Your task to perform on an android device: toggle notification dots Image 0: 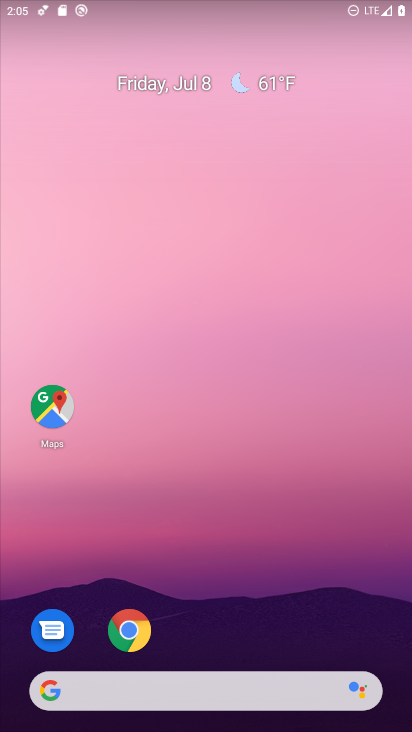
Step 0: drag from (386, 592) to (234, 67)
Your task to perform on an android device: toggle notification dots Image 1: 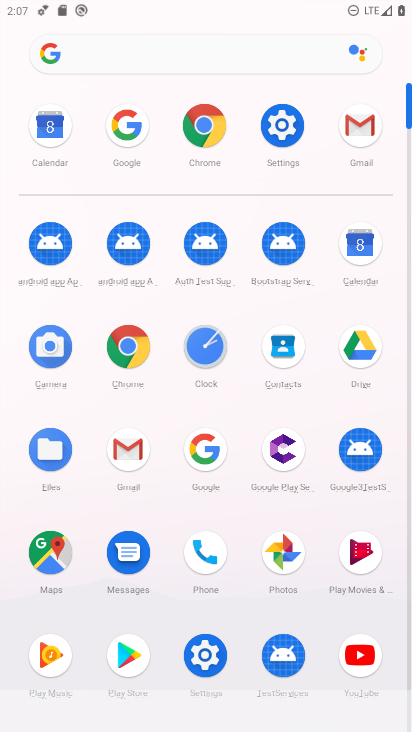
Step 1: click (213, 649)
Your task to perform on an android device: toggle notification dots Image 2: 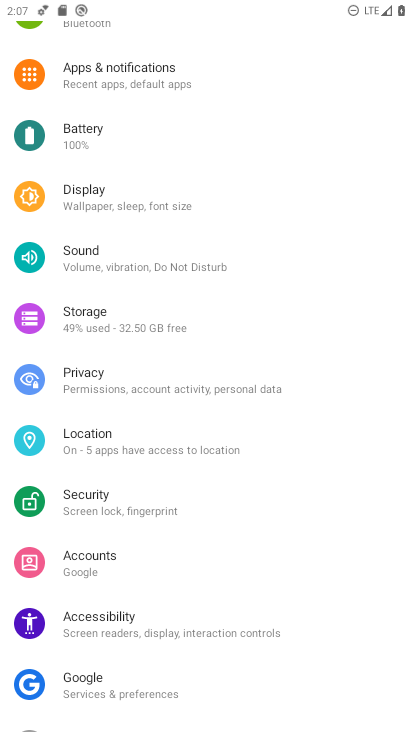
Step 2: click (156, 77)
Your task to perform on an android device: toggle notification dots Image 3: 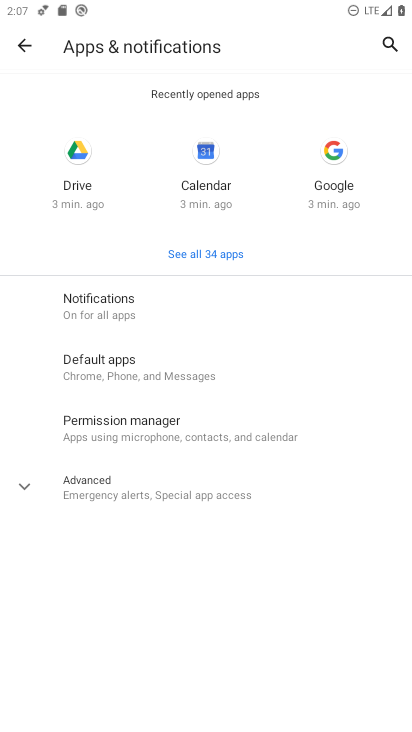
Step 3: click (143, 299)
Your task to perform on an android device: toggle notification dots Image 4: 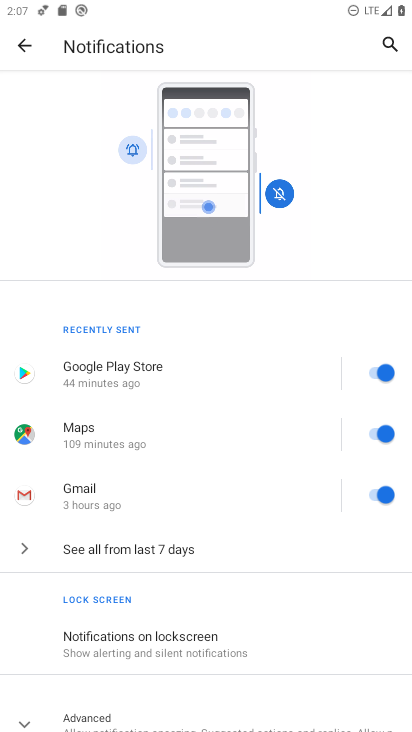
Step 4: drag from (53, 663) to (114, 101)
Your task to perform on an android device: toggle notification dots Image 5: 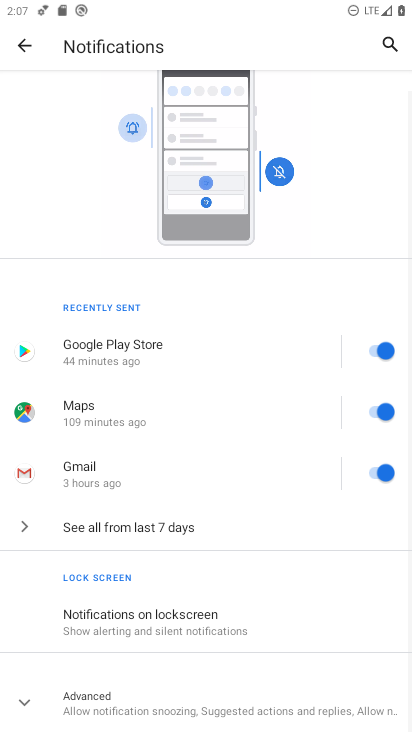
Step 5: drag from (43, 704) to (224, 129)
Your task to perform on an android device: toggle notification dots Image 6: 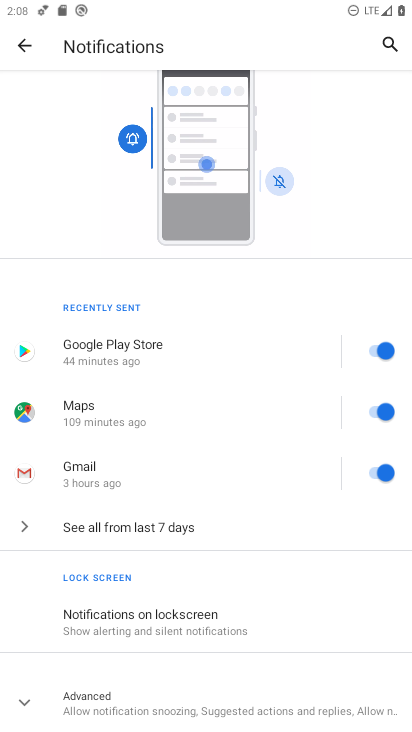
Step 6: drag from (133, 709) to (201, 170)
Your task to perform on an android device: toggle notification dots Image 7: 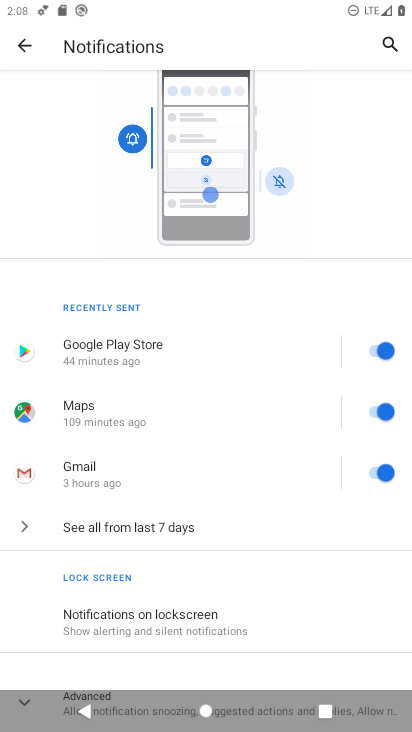
Step 7: drag from (95, 649) to (119, 235)
Your task to perform on an android device: toggle notification dots Image 8: 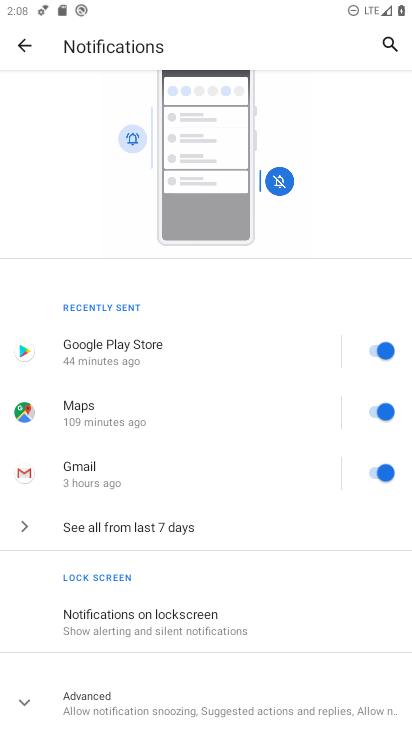
Step 8: click (25, 705)
Your task to perform on an android device: toggle notification dots Image 9: 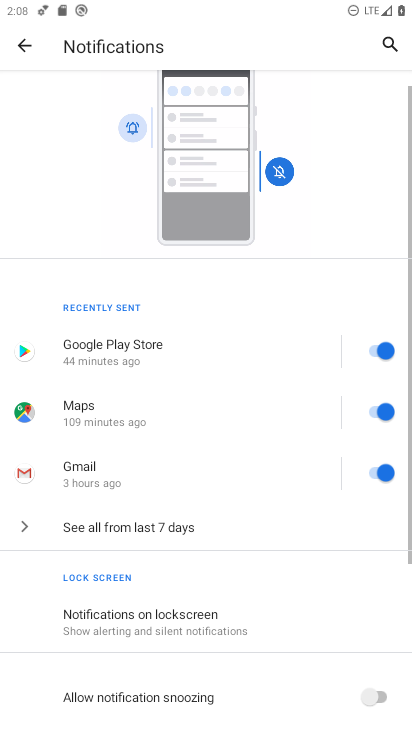
Step 9: drag from (67, 693) to (155, 241)
Your task to perform on an android device: toggle notification dots Image 10: 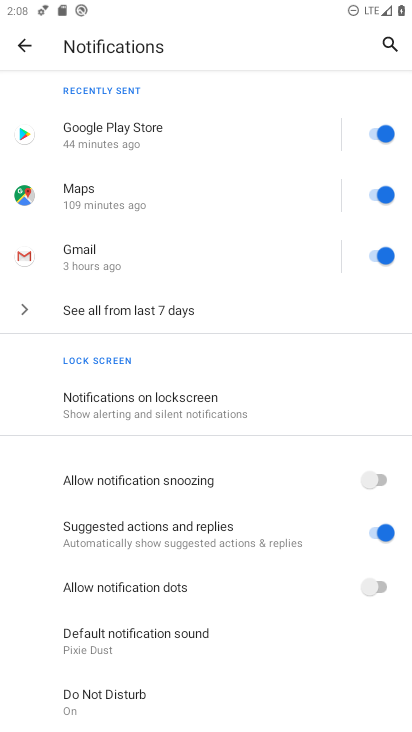
Step 10: click (379, 586)
Your task to perform on an android device: toggle notification dots Image 11: 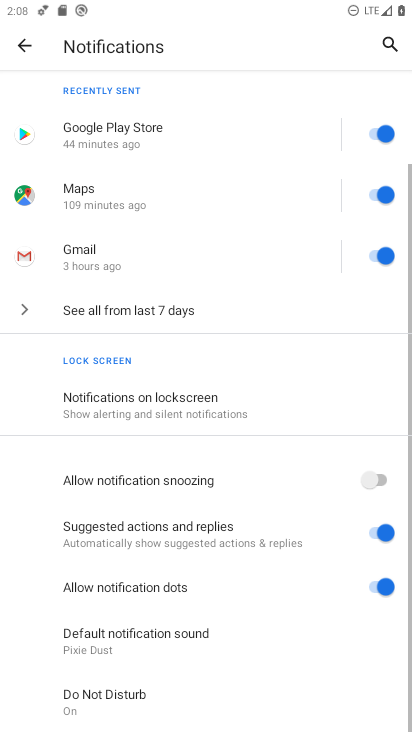
Step 11: task complete